Your task to perform on an android device: turn off wifi Image 0: 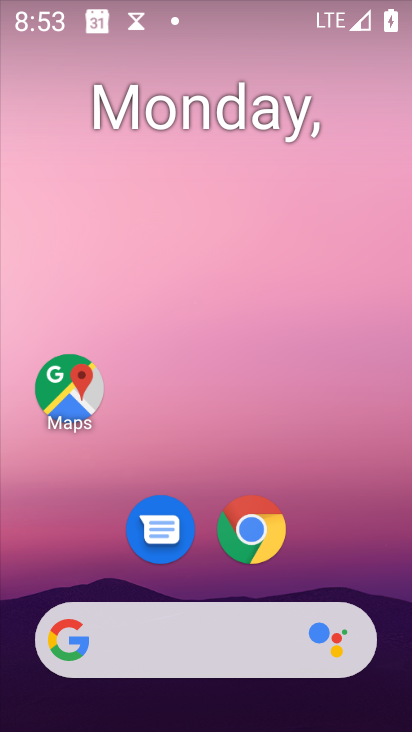
Step 0: drag from (7, 724) to (253, 140)
Your task to perform on an android device: turn off wifi Image 1: 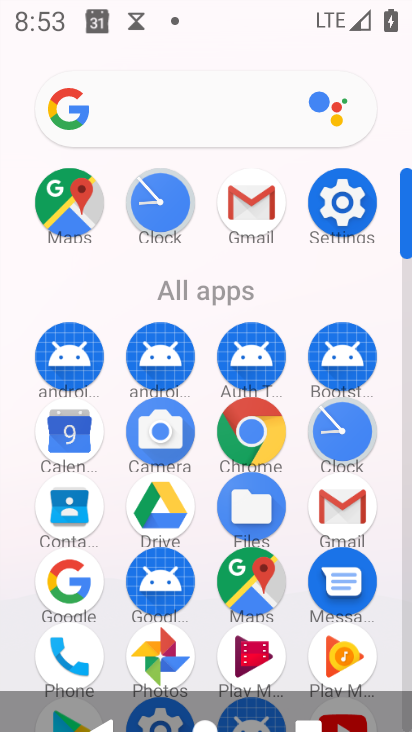
Step 1: click (360, 227)
Your task to perform on an android device: turn off wifi Image 2: 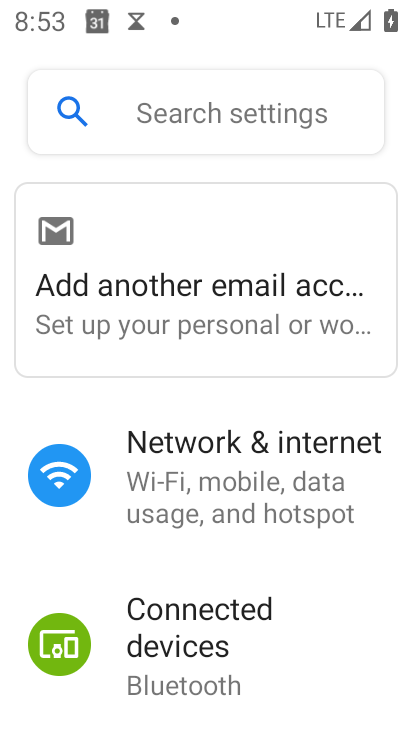
Step 2: click (134, 469)
Your task to perform on an android device: turn off wifi Image 3: 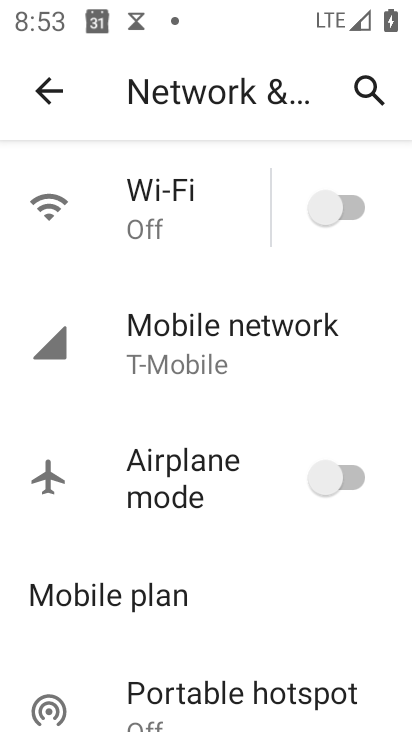
Step 3: task complete